Your task to perform on an android device: check battery use Image 0: 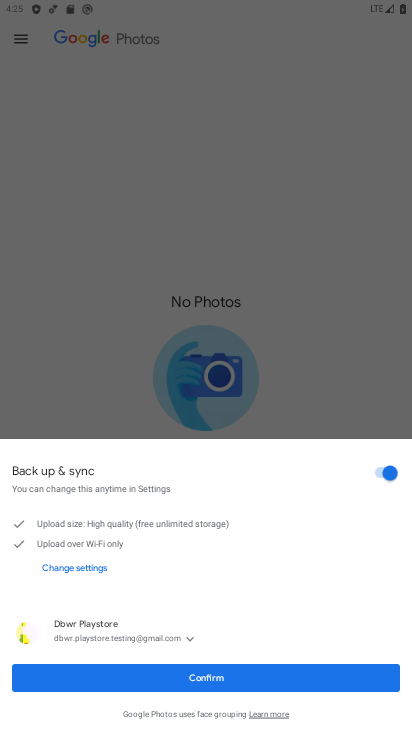
Step 0: click (177, 679)
Your task to perform on an android device: check battery use Image 1: 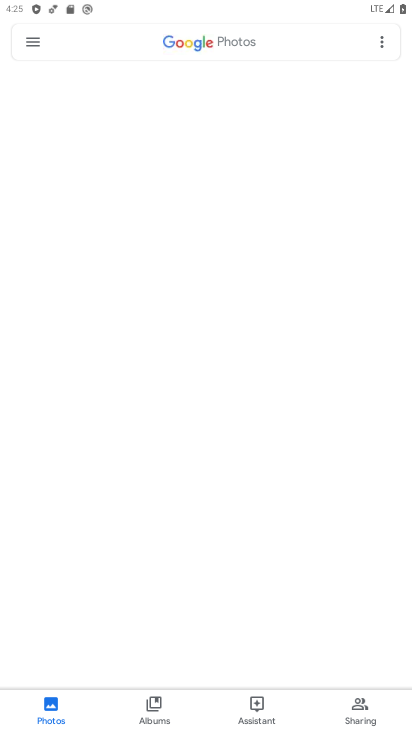
Step 1: press home button
Your task to perform on an android device: check battery use Image 2: 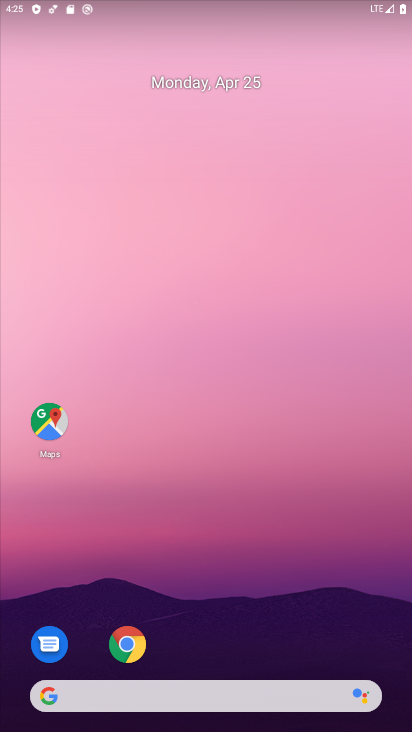
Step 2: drag from (213, 574) to (166, 14)
Your task to perform on an android device: check battery use Image 3: 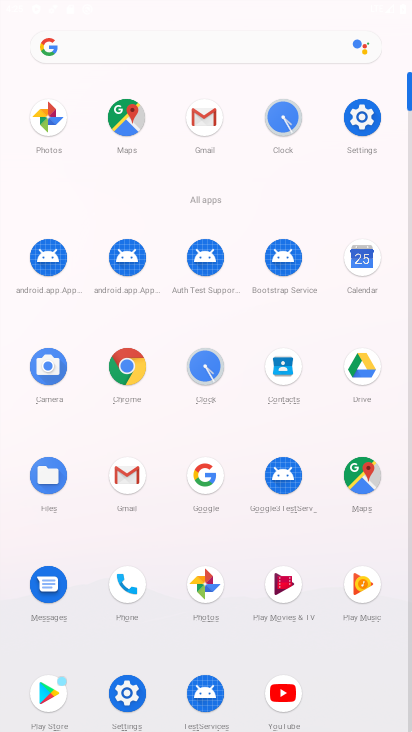
Step 3: click (364, 118)
Your task to perform on an android device: check battery use Image 4: 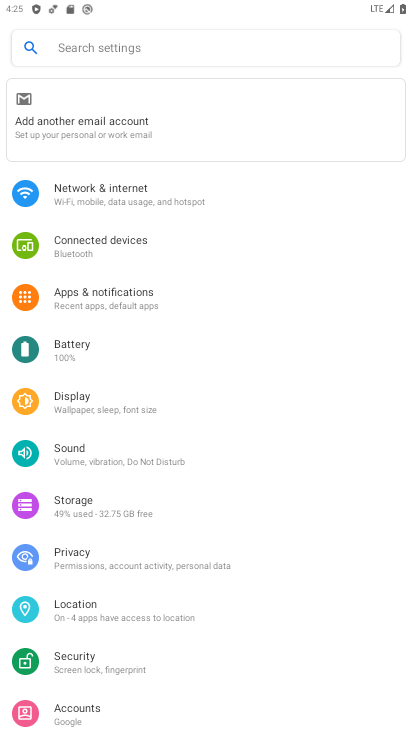
Step 4: click (136, 349)
Your task to perform on an android device: check battery use Image 5: 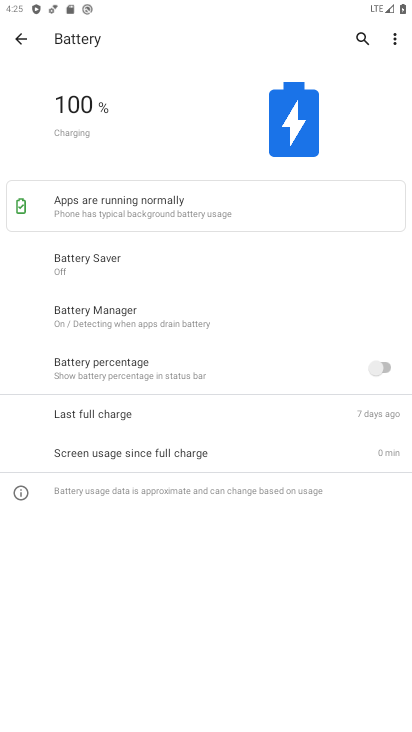
Step 5: click (393, 39)
Your task to perform on an android device: check battery use Image 6: 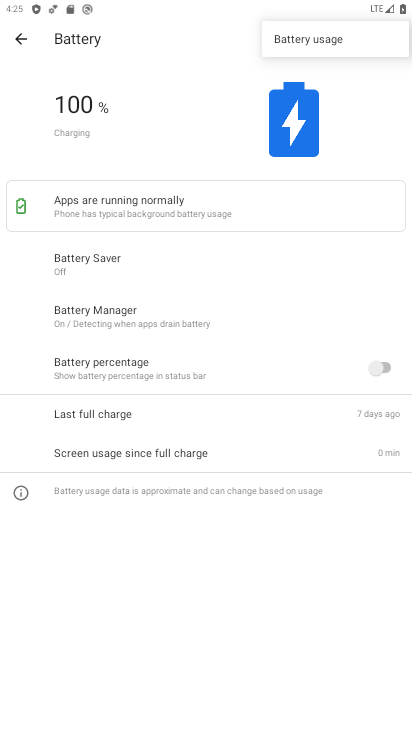
Step 6: click (293, 32)
Your task to perform on an android device: check battery use Image 7: 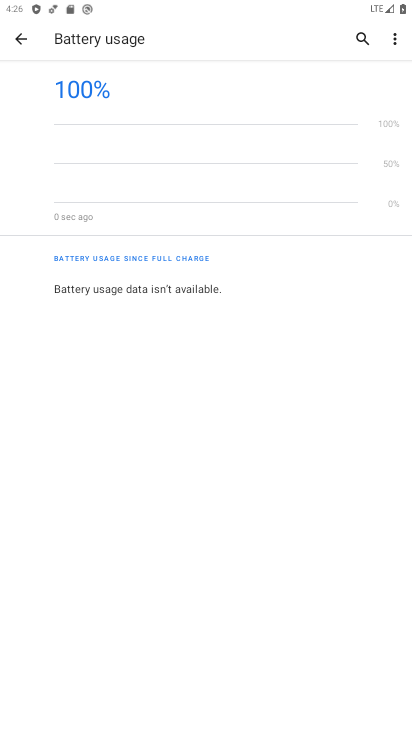
Step 7: task complete